Your task to perform on an android device: Turn off the flashlight Image 0: 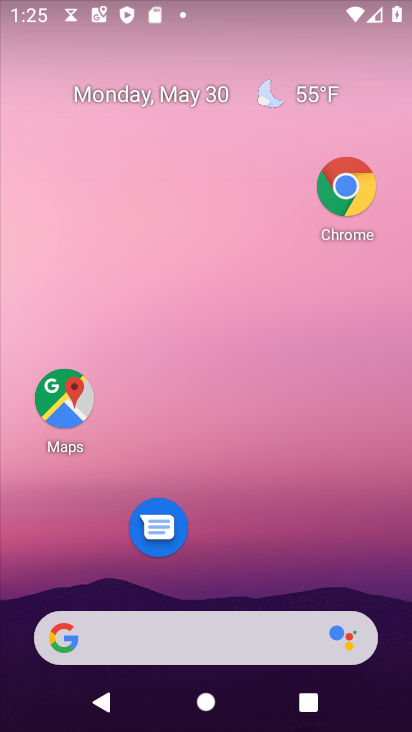
Step 0: click (242, 130)
Your task to perform on an android device: Turn off the flashlight Image 1: 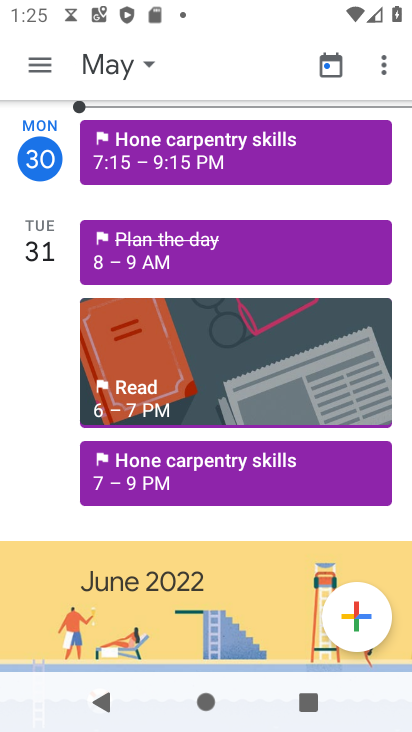
Step 1: drag from (229, 585) to (236, 224)
Your task to perform on an android device: Turn off the flashlight Image 2: 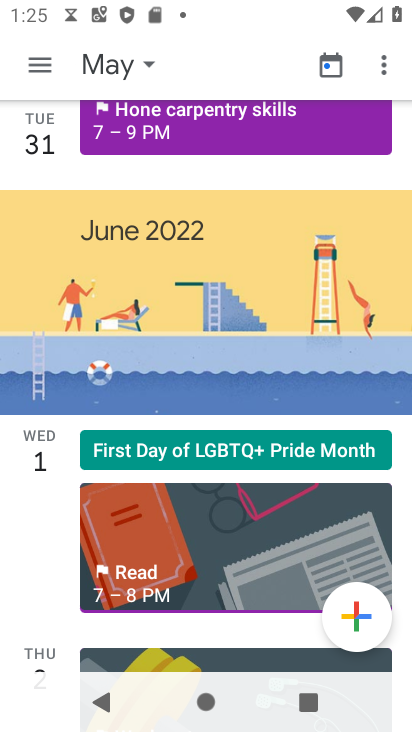
Step 2: press home button
Your task to perform on an android device: Turn off the flashlight Image 3: 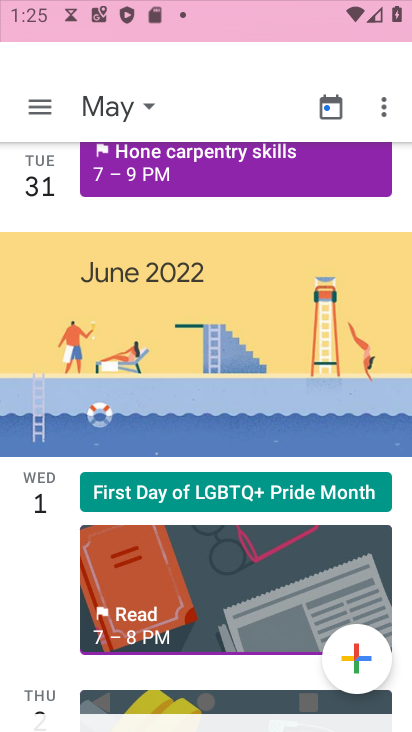
Step 3: drag from (192, 570) to (208, 121)
Your task to perform on an android device: Turn off the flashlight Image 4: 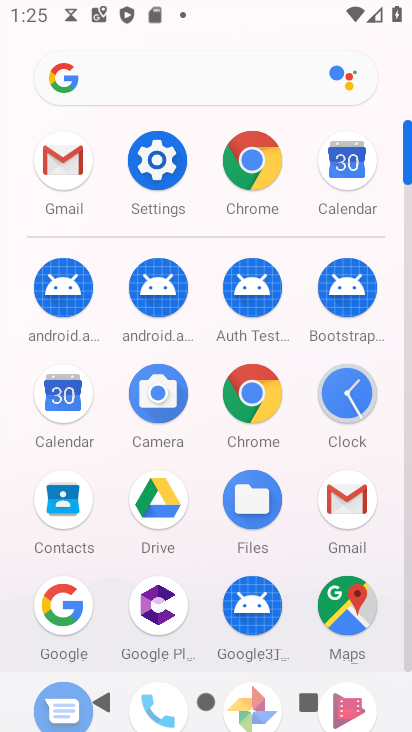
Step 4: click (141, 151)
Your task to perform on an android device: Turn off the flashlight Image 5: 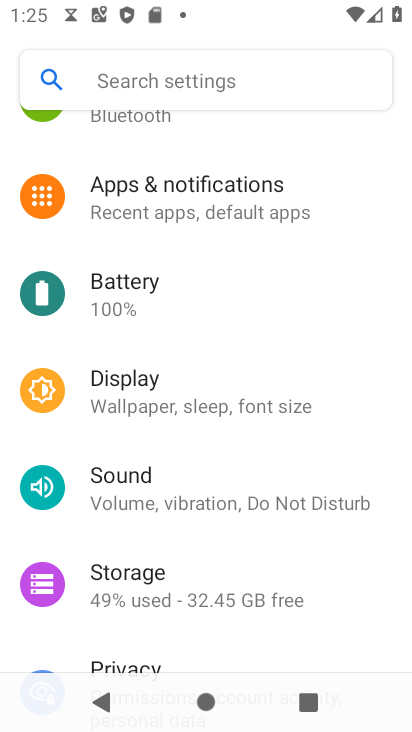
Step 5: click (138, 86)
Your task to perform on an android device: Turn off the flashlight Image 6: 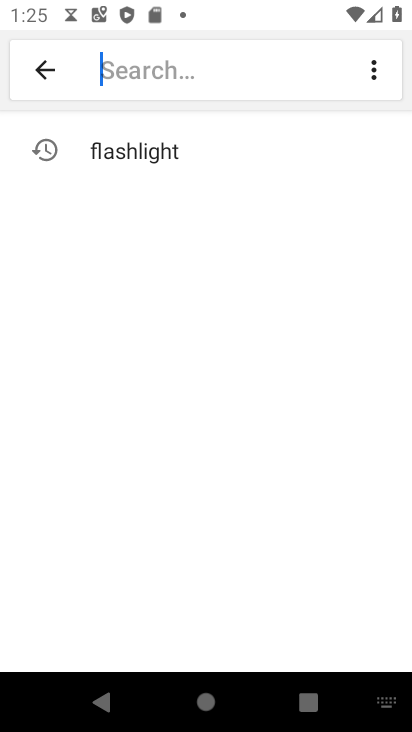
Step 6: click (112, 137)
Your task to perform on an android device: Turn off the flashlight Image 7: 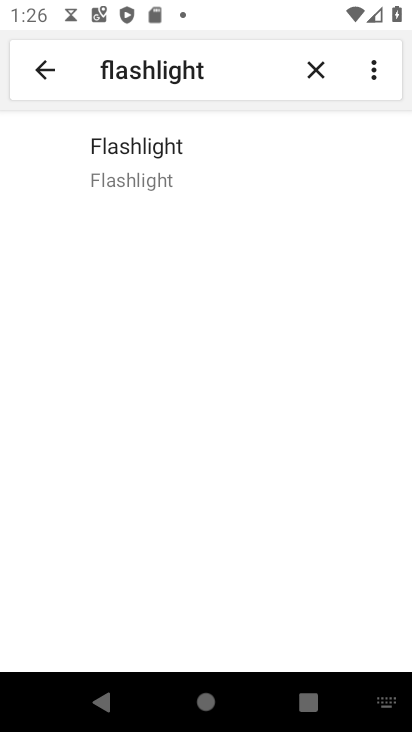
Step 7: task complete